Your task to perform on an android device: open device folders in google photos Image 0: 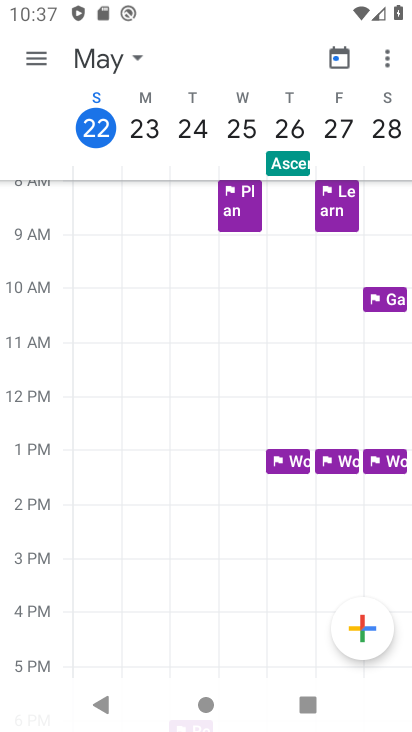
Step 0: press home button
Your task to perform on an android device: open device folders in google photos Image 1: 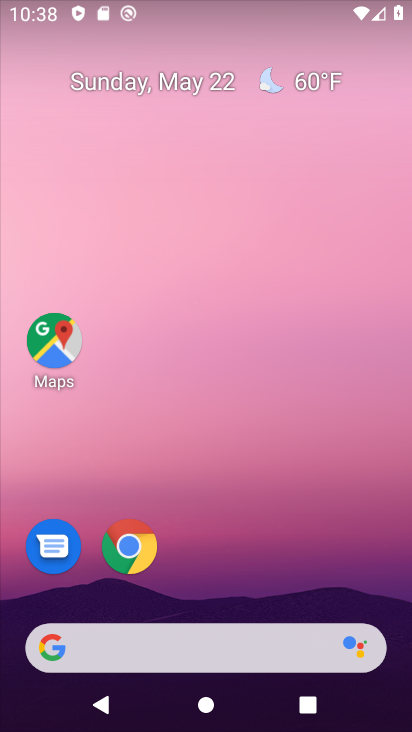
Step 1: drag from (224, 728) to (208, 93)
Your task to perform on an android device: open device folders in google photos Image 2: 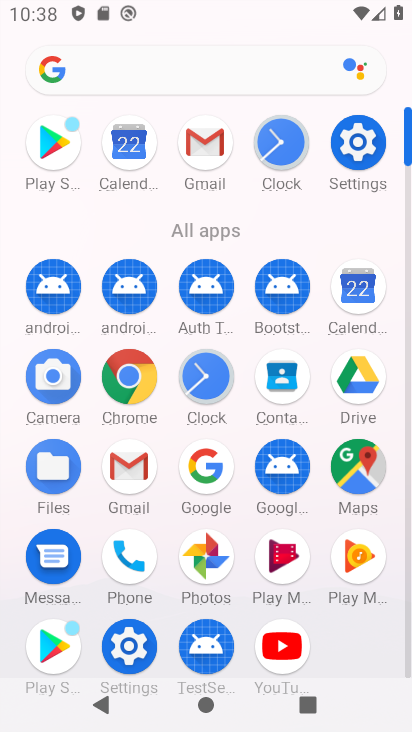
Step 2: click (209, 560)
Your task to perform on an android device: open device folders in google photos Image 3: 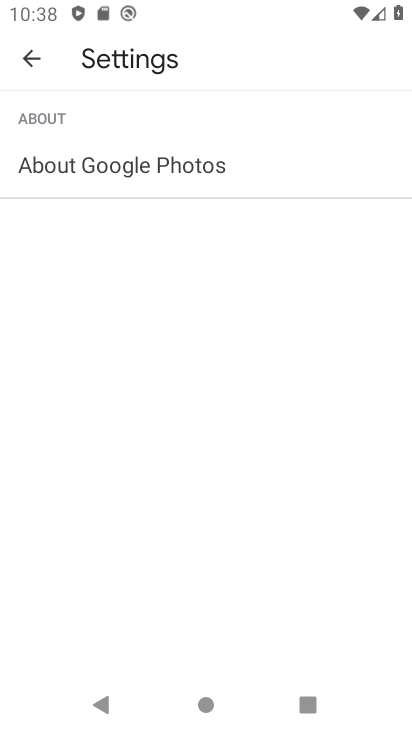
Step 3: click (34, 54)
Your task to perform on an android device: open device folders in google photos Image 4: 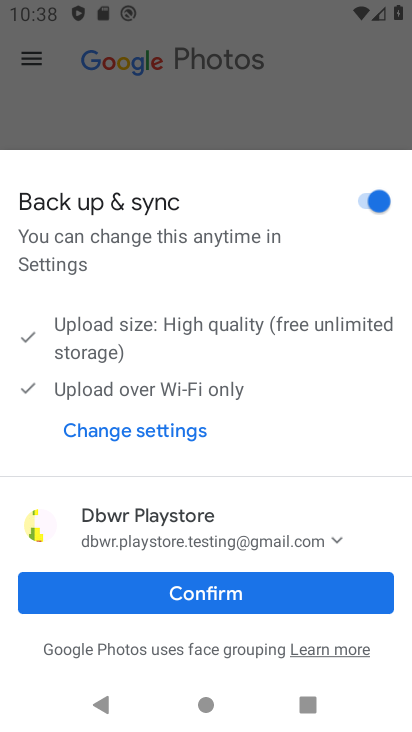
Step 4: click (204, 600)
Your task to perform on an android device: open device folders in google photos Image 5: 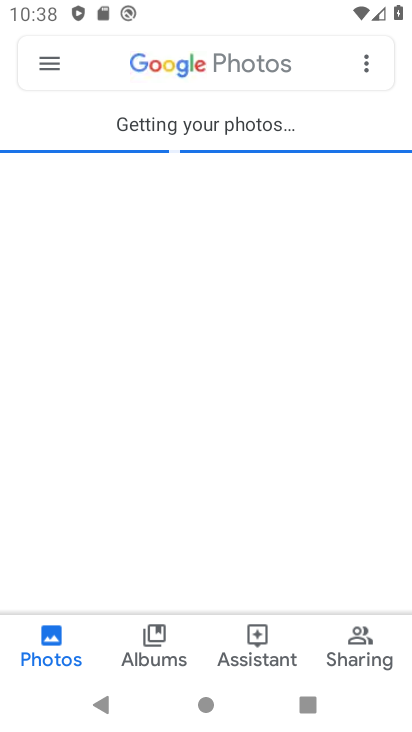
Step 5: click (31, 58)
Your task to perform on an android device: open device folders in google photos Image 6: 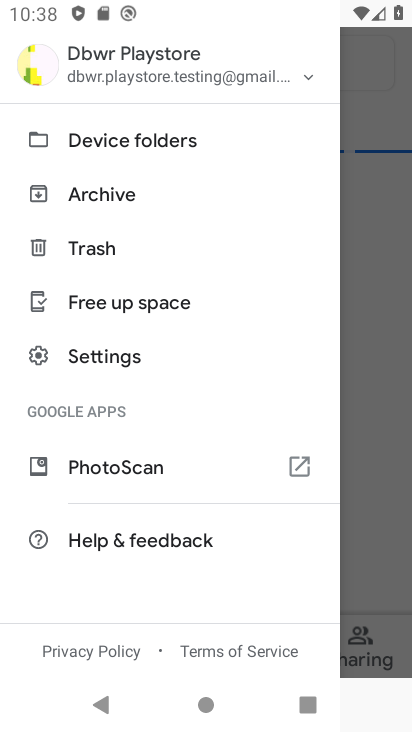
Step 6: click (88, 136)
Your task to perform on an android device: open device folders in google photos Image 7: 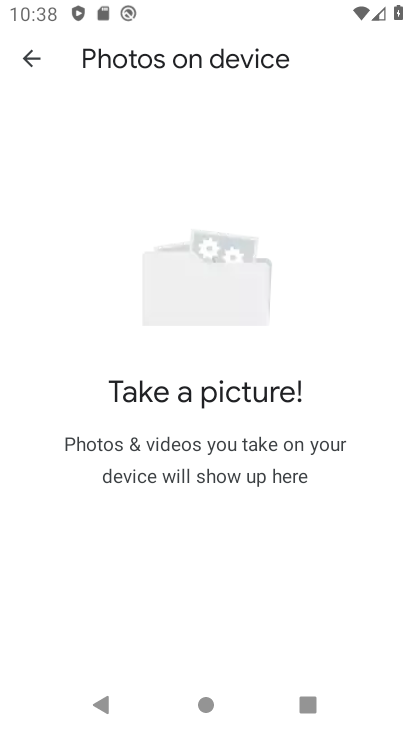
Step 7: task complete